Your task to perform on an android device: Open Amazon Image 0: 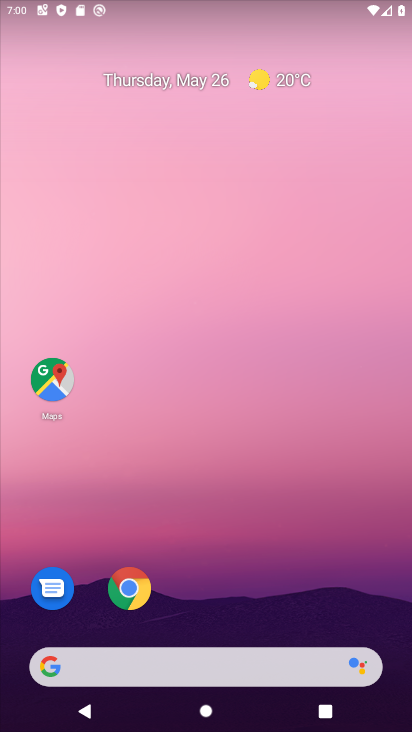
Step 0: click (309, 91)
Your task to perform on an android device: Open Amazon Image 1: 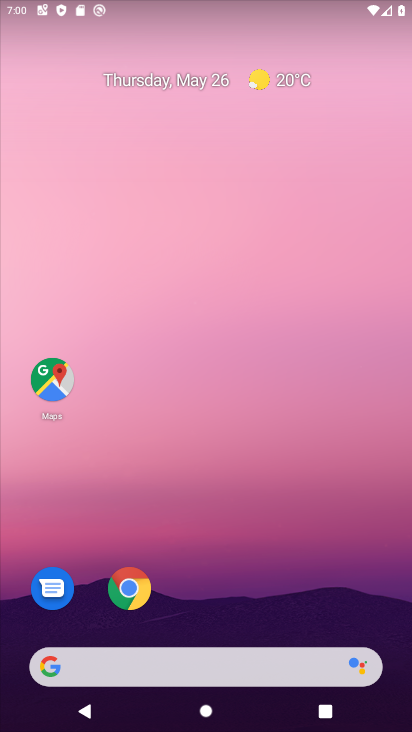
Step 1: drag from (340, 624) to (234, 0)
Your task to perform on an android device: Open Amazon Image 2: 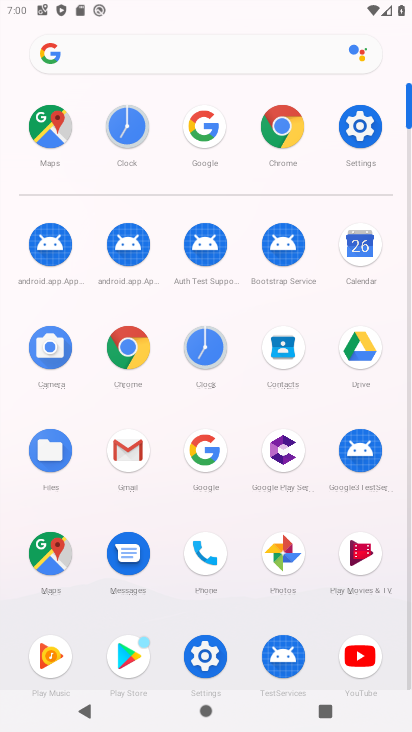
Step 2: click (199, 462)
Your task to perform on an android device: Open Amazon Image 3: 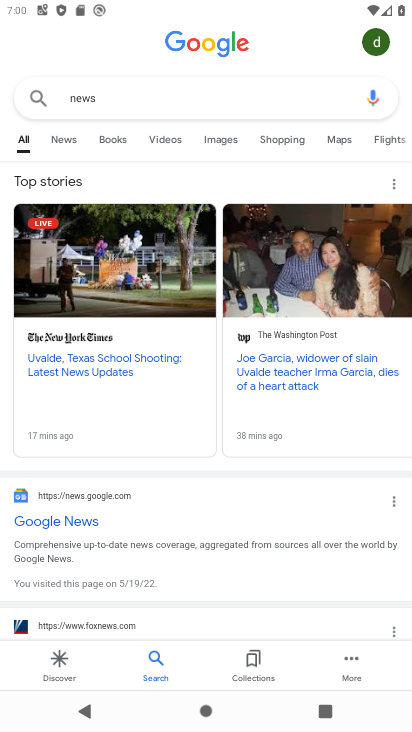
Step 3: press back button
Your task to perform on an android device: Open Amazon Image 4: 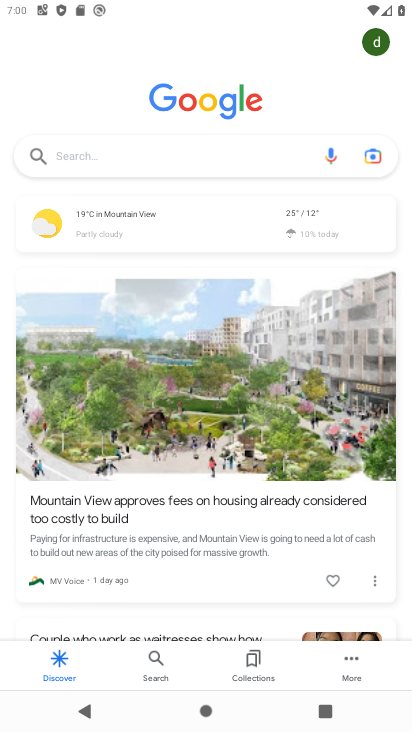
Step 4: click (201, 157)
Your task to perform on an android device: Open Amazon Image 5: 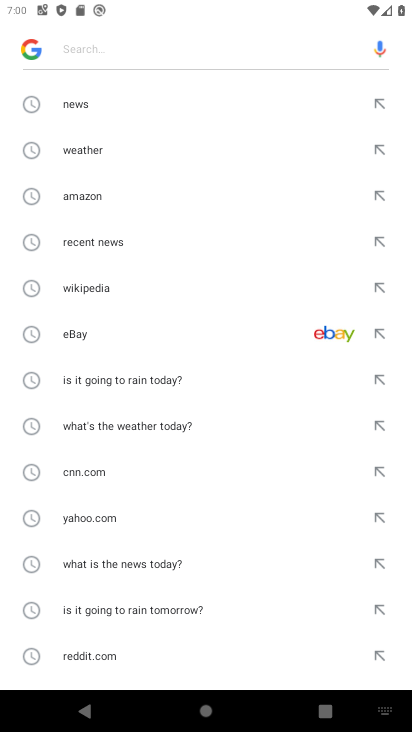
Step 5: click (92, 193)
Your task to perform on an android device: Open Amazon Image 6: 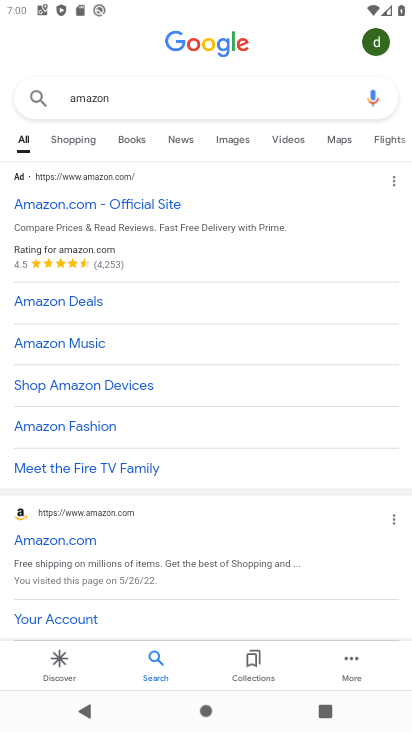
Step 6: task complete